Your task to perform on an android device: Open calendar and show me the second week of next month Image 0: 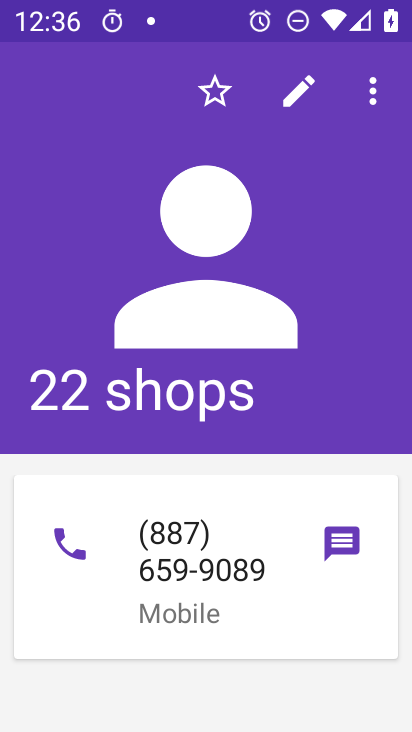
Step 0: press home button
Your task to perform on an android device: Open calendar and show me the second week of next month Image 1: 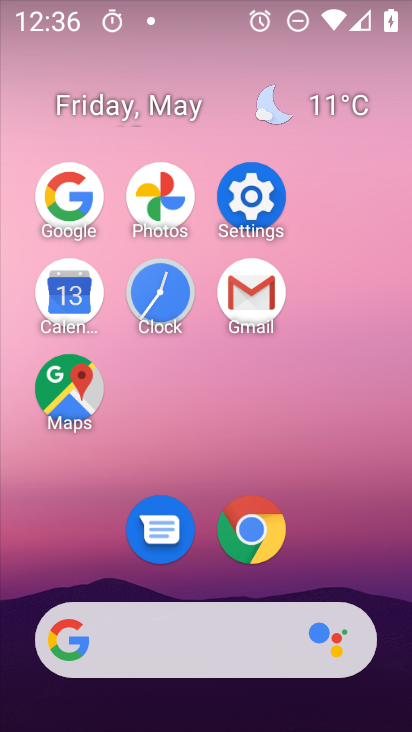
Step 1: click (80, 285)
Your task to perform on an android device: Open calendar and show me the second week of next month Image 2: 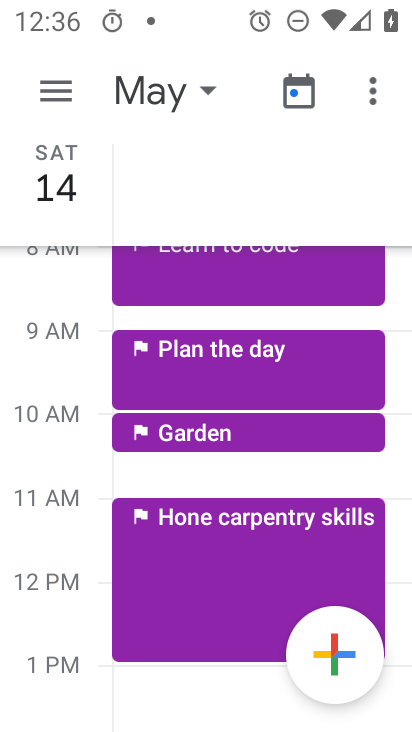
Step 2: click (180, 95)
Your task to perform on an android device: Open calendar and show me the second week of next month Image 3: 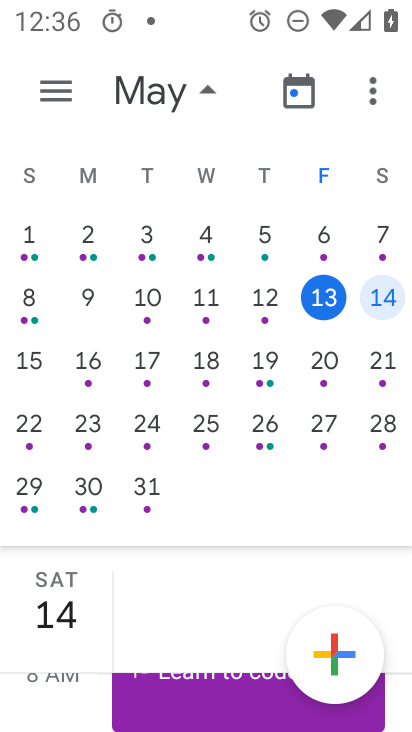
Step 3: drag from (396, 354) to (18, 171)
Your task to perform on an android device: Open calendar and show me the second week of next month Image 4: 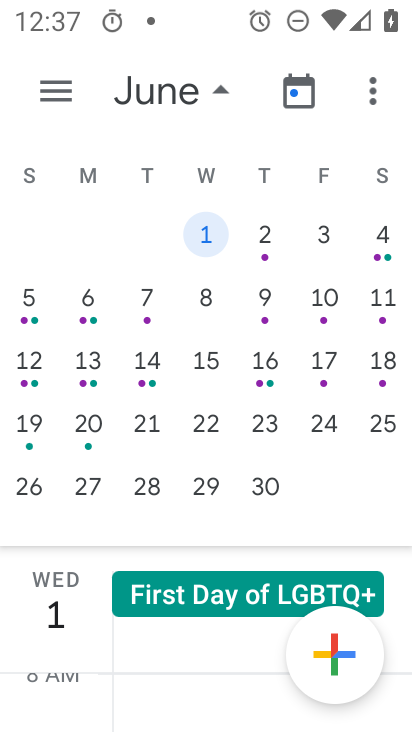
Step 4: click (73, 96)
Your task to perform on an android device: Open calendar and show me the second week of next month Image 5: 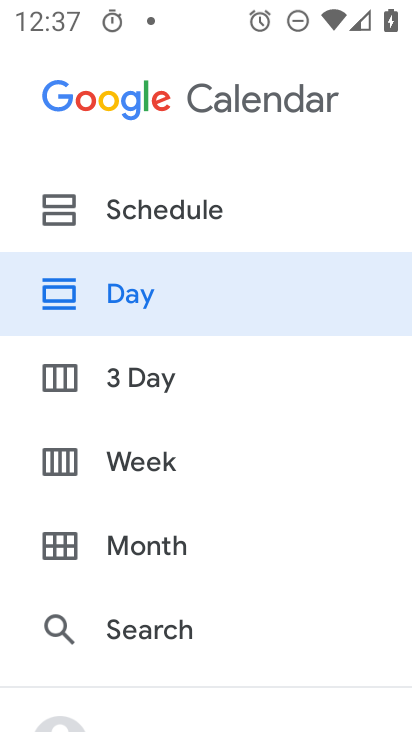
Step 5: click (177, 465)
Your task to perform on an android device: Open calendar and show me the second week of next month Image 6: 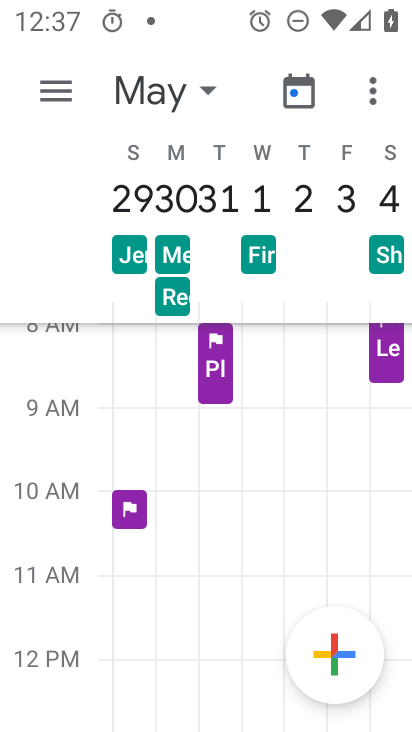
Step 6: task complete